Your task to perform on an android device: Go to display settings Image 0: 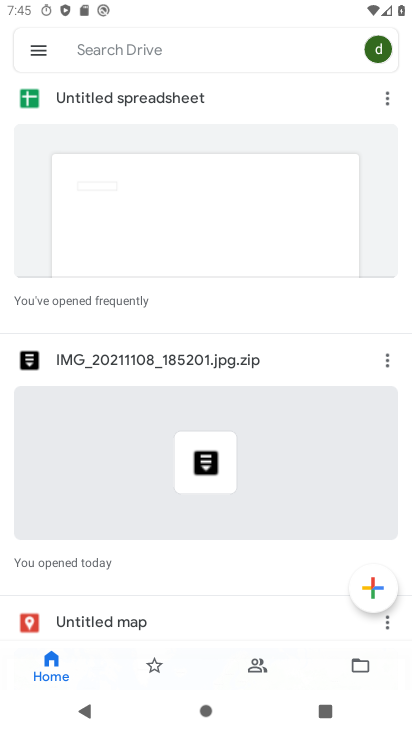
Step 0: press home button
Your task to perform on an android device: Go to display settings Image 1: 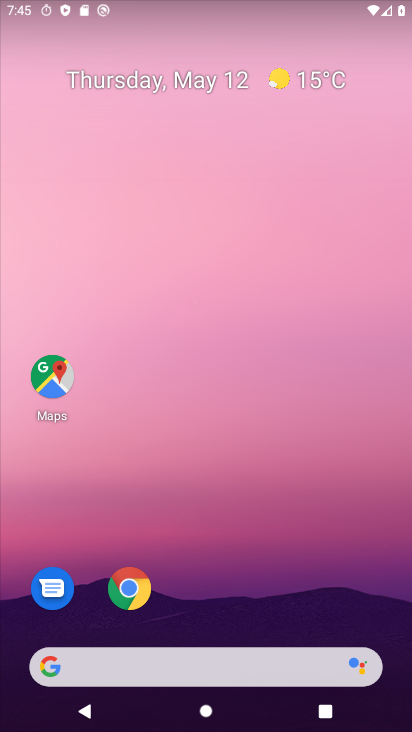
Step 1: drag from (168, 593) to (160, 231)
Your task to perform on an android device: Go to display settings Image 2: 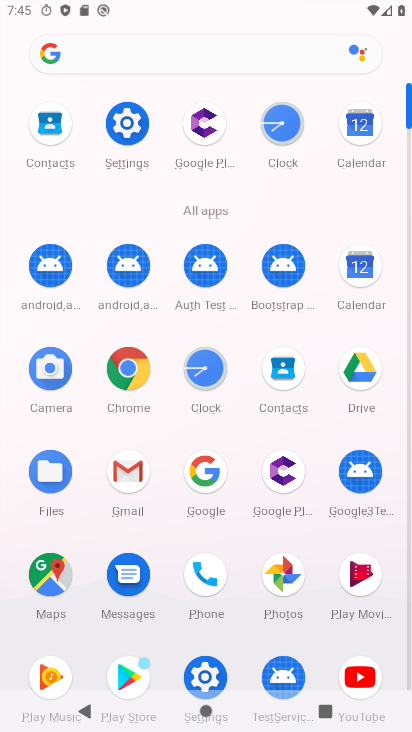
Step 2: click (121, 123)
Your task to perform on an android device: Go to display settings Image 3: 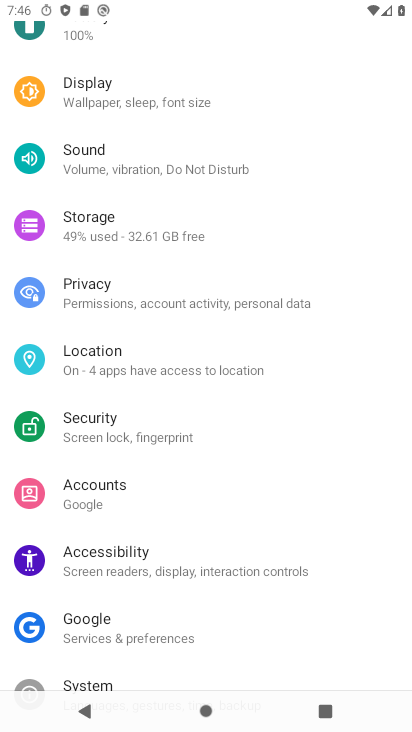
Step 3: drag from (288, 64) to (343, 242)
Your task to perform on an android device: Go to display settings Image 4: 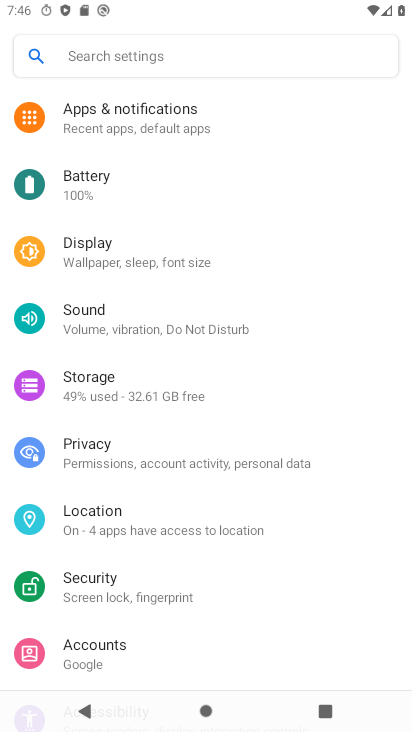
Step 4: click (168, 257)
Your task to perform on an android device: Go to display settings Image 5: 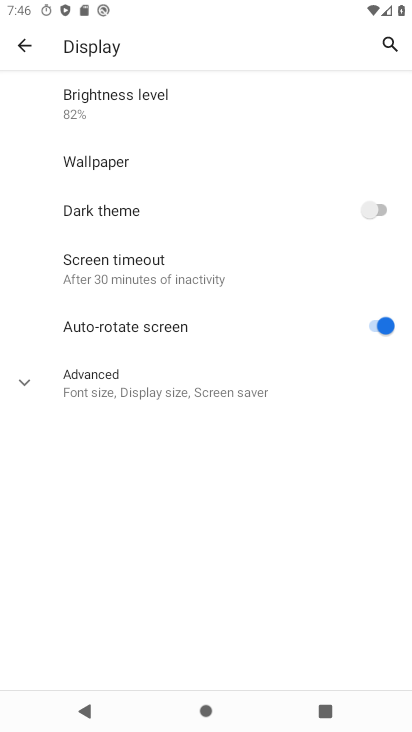
Step 5: task complete